Your task to perform on an android device: Do I have any events today? Image 0: 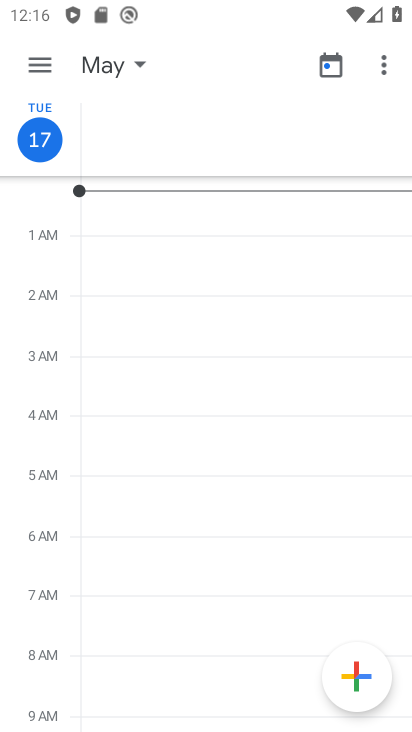
Step 0: press home button
Your task to perform on an android device: Do I have any events today? Image 1: 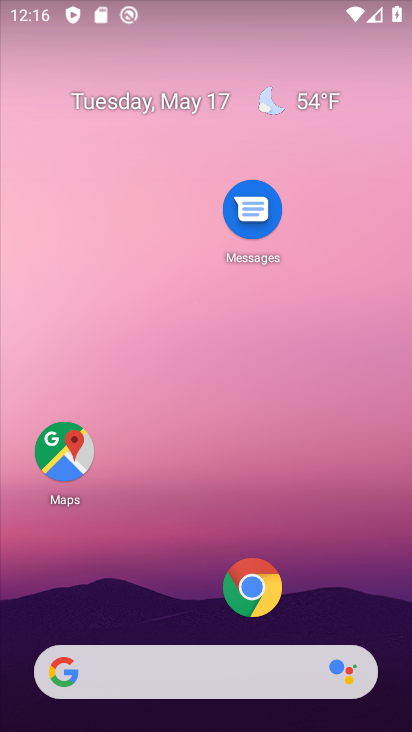
Step 1: drag from (137, 541) to (295, 2)
Your task to perform on an android device: Do I have any events today? Image 2: 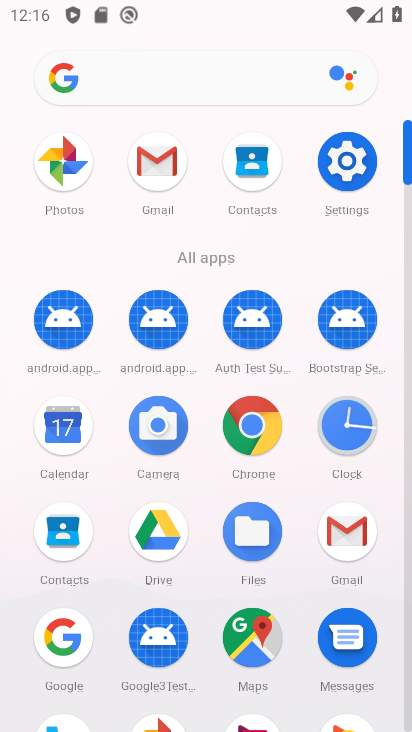
Step 2: click (73, 446)
Your task to perform on an android device: Do I have any events today? Image 3: 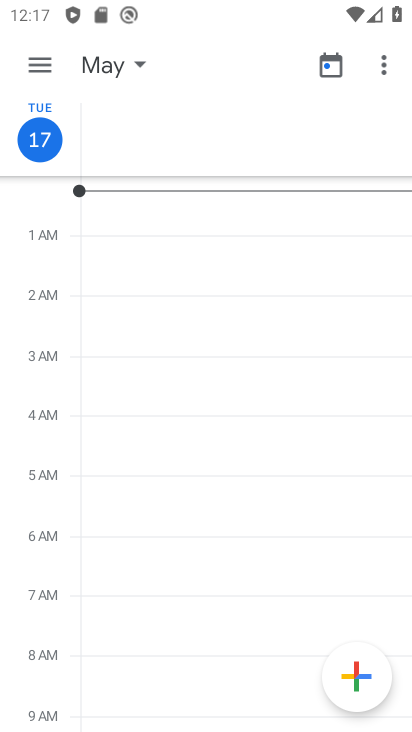
Step 3: click (51, 62)
Your task to perform on an android device: Do I have any events today? Image 4: 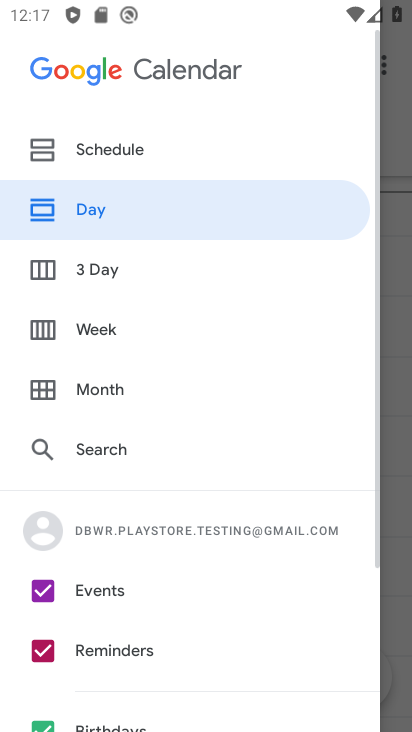
Step 4: drag from (96, 585) to (144, 378)
Your task to perform on an android device: Do I have any events today? Image 5: 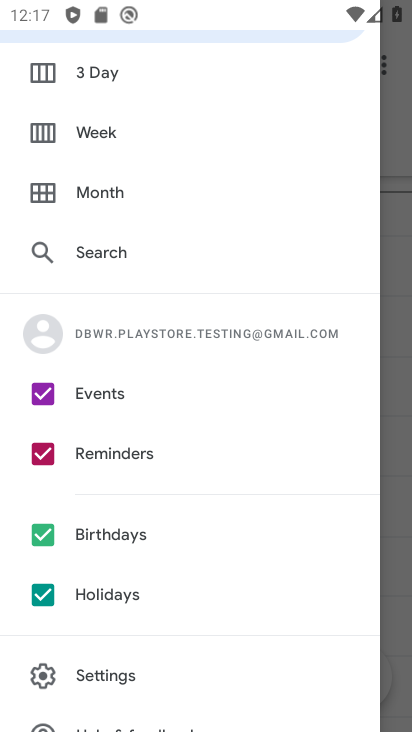
Step 5: click (67, 451)
Your task to perform on an android device: Do I have any events today? Image 6: 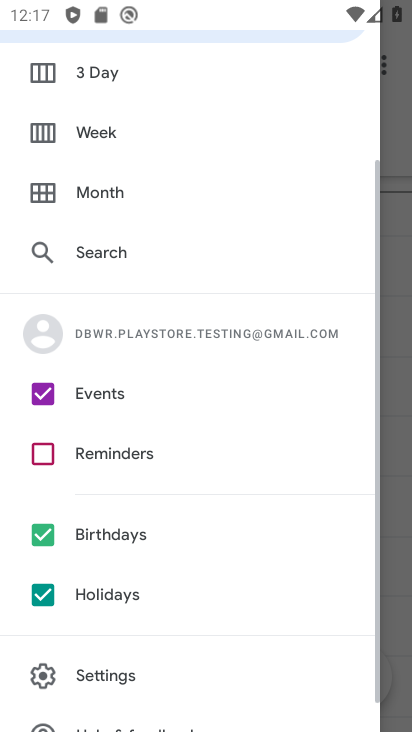
Step 6: click (62, 523)
Your task to perform on an android device: Do I have any events today? Image 7: 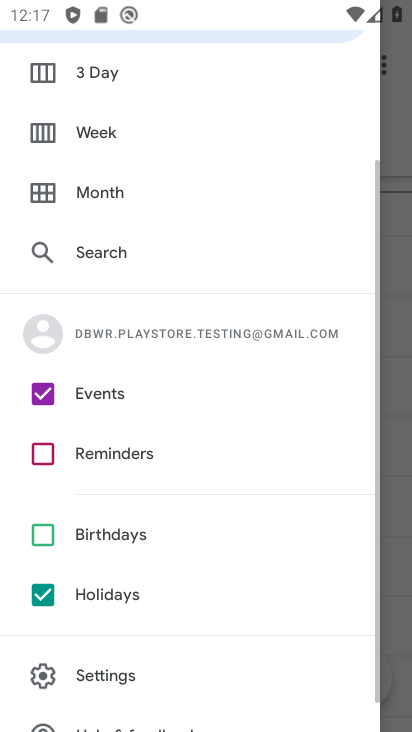
Step 7: click (61, 596)
Your task to perform on an android device: Do I have any events today? Image 8: 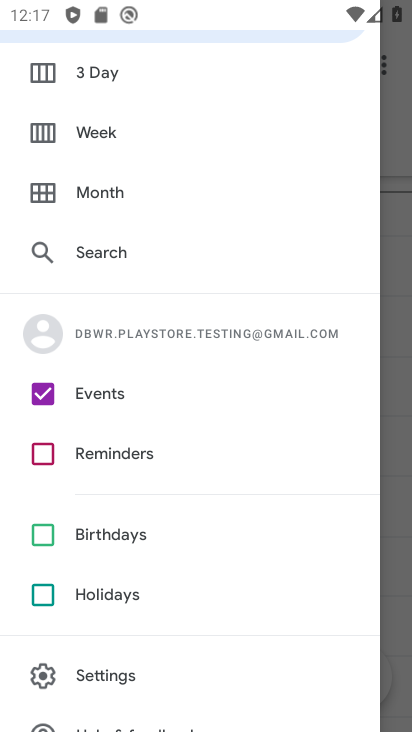
Step 8: drag from (229, 195) to (236, 497)
Your task to perform on an android device: Do I have any events today? Image 9: 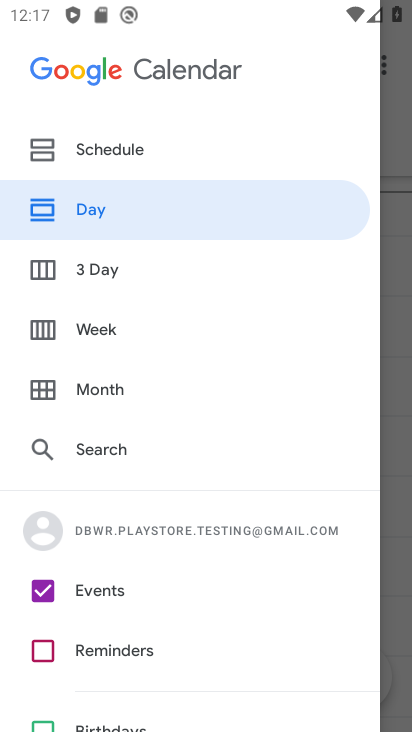
Step 9: click (171, 232)
Your task to perform on an android device: Do I have any events today? Image 10: 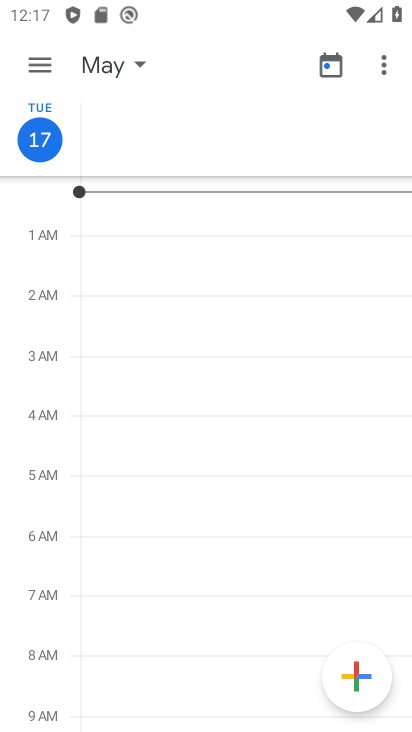
Step 10: task complete